Your task to perform on an android device: Go to Maps Image 0: 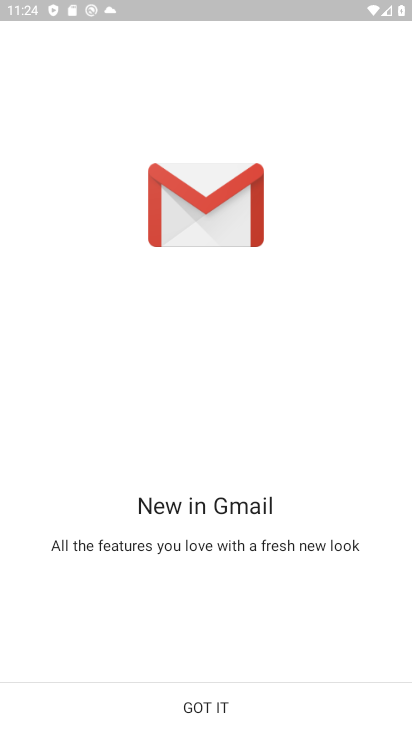
Step 0: press home button
Your task to perform on an android device: Go to Maps Image 1: 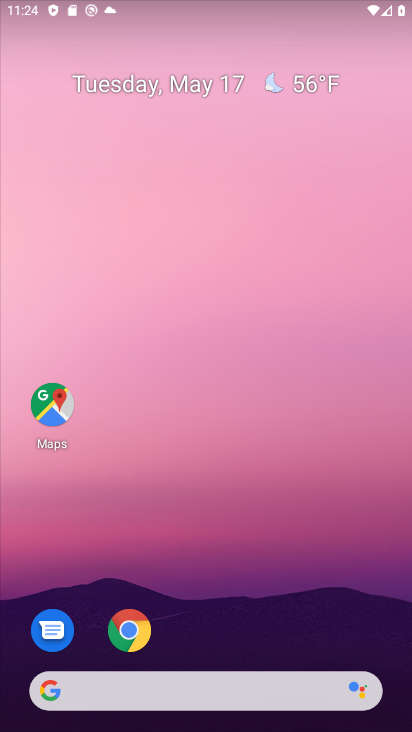
Step 1: drag from (326, 622) to (291, 172)
Your task to perform on an android device: Go to Maps Image 2: 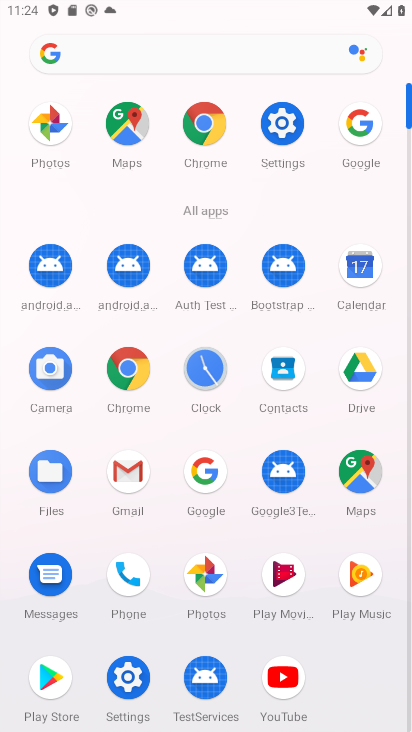
Step 2: click (369, 464)
Your task to perform on an android device: Go to Maps Image 3: 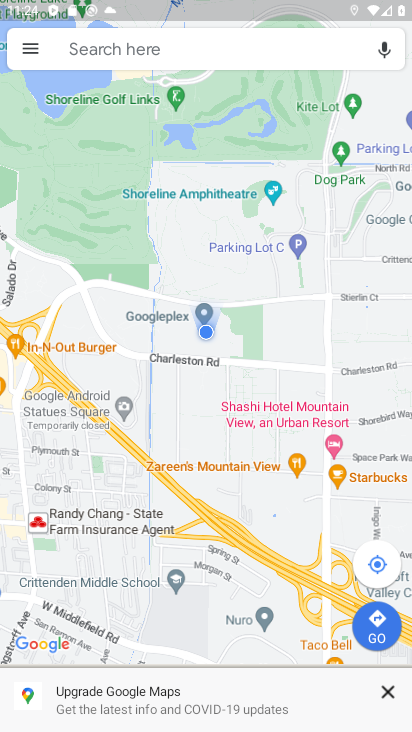
Step 3: task complete